Your task to perform on an android device: View the shopping cart on ebay. Search for "logitech g pro" on ebay, select the first entry, add it to the cart, then select checkout. Image 0: 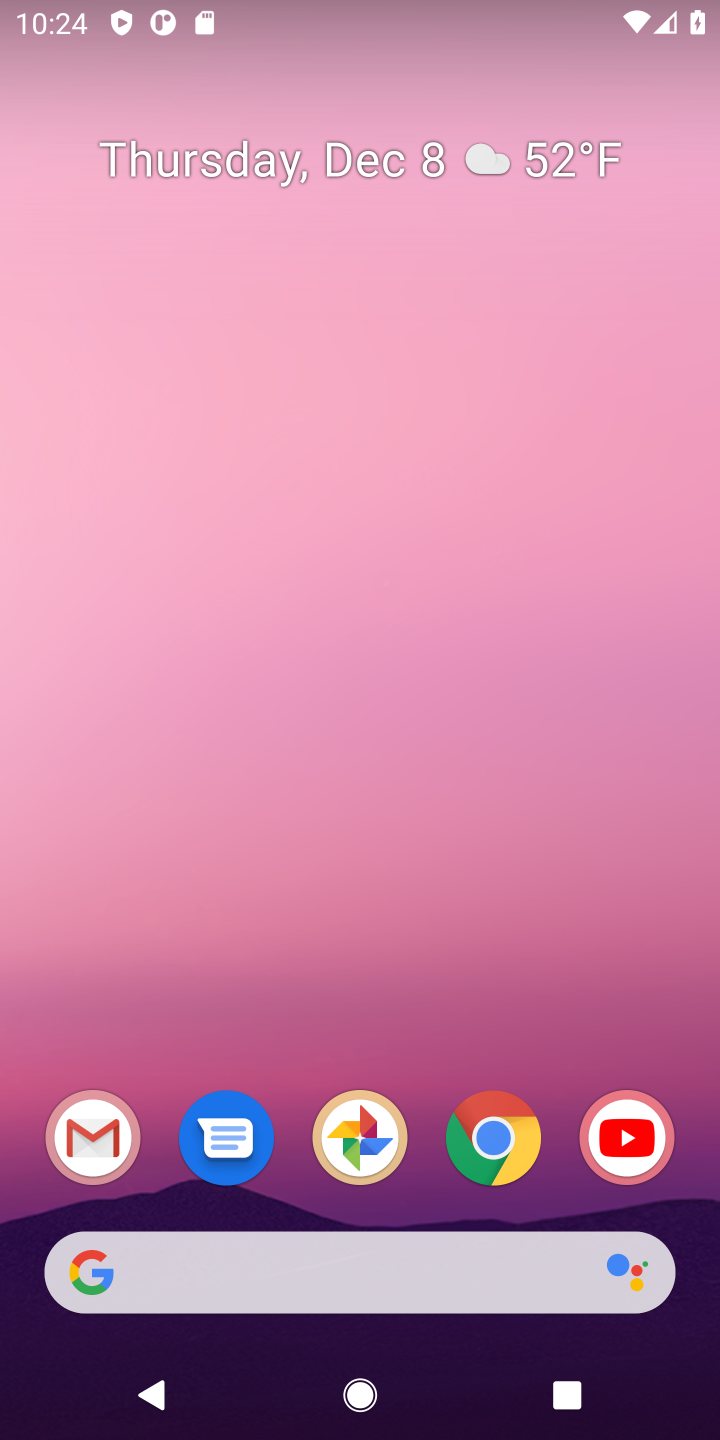
Step 0: click (486, 1148)
Your task to perform on an android device: View the shopping cart on ebay. Search for "logitech g pro" on ebay, select the first entry, add it to the cart, then select checkout. Image 1: 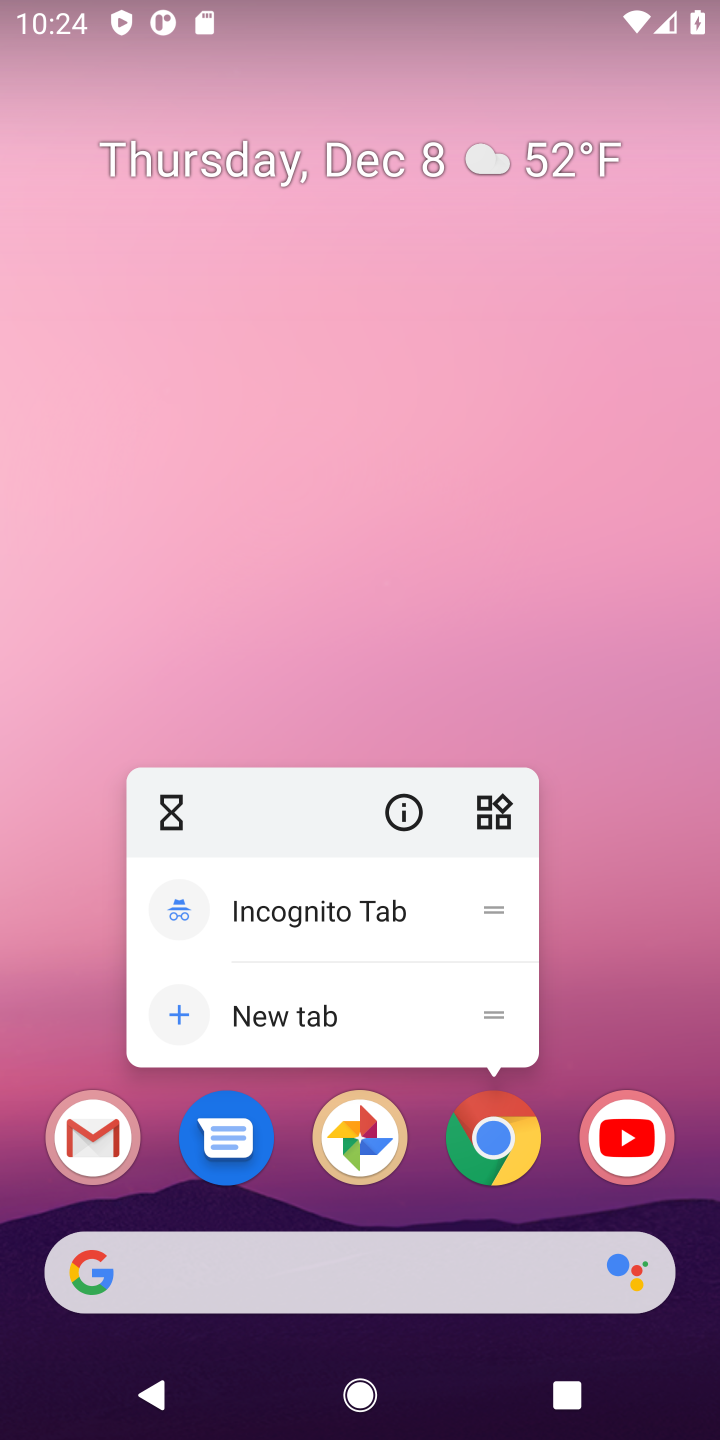
Step 1: click (486, 1148)
Your task to perform on an android device: View the shopping cart on ebay. Search for "logitech g pro" on ebay, select the first entry, add it to the cart, then select checkout. Image 2: 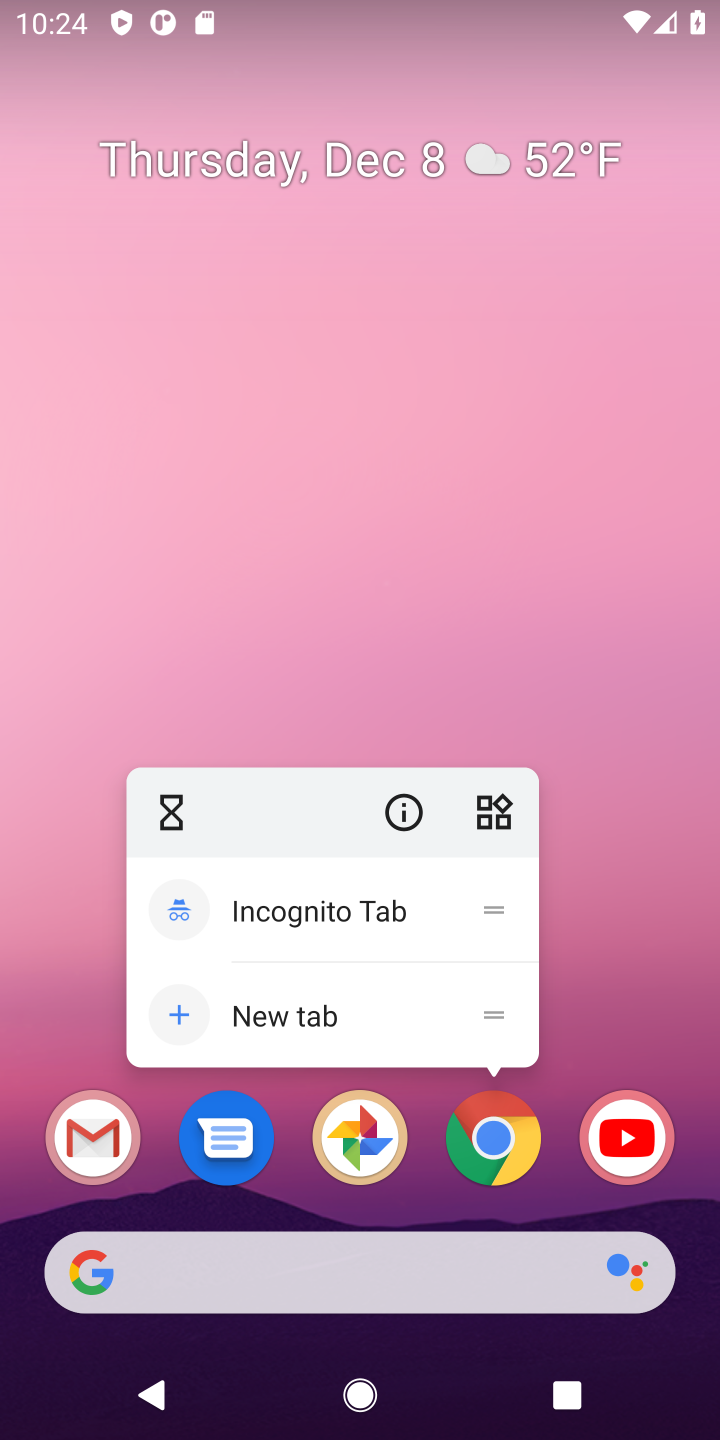
Step 2: click (486, 1148)
Your task to perform on an android device: View the shopping cart on ebay. Search for "logitech g pro" on ebay, select the first entry, add it to the cart, then select checkout. Image 3: 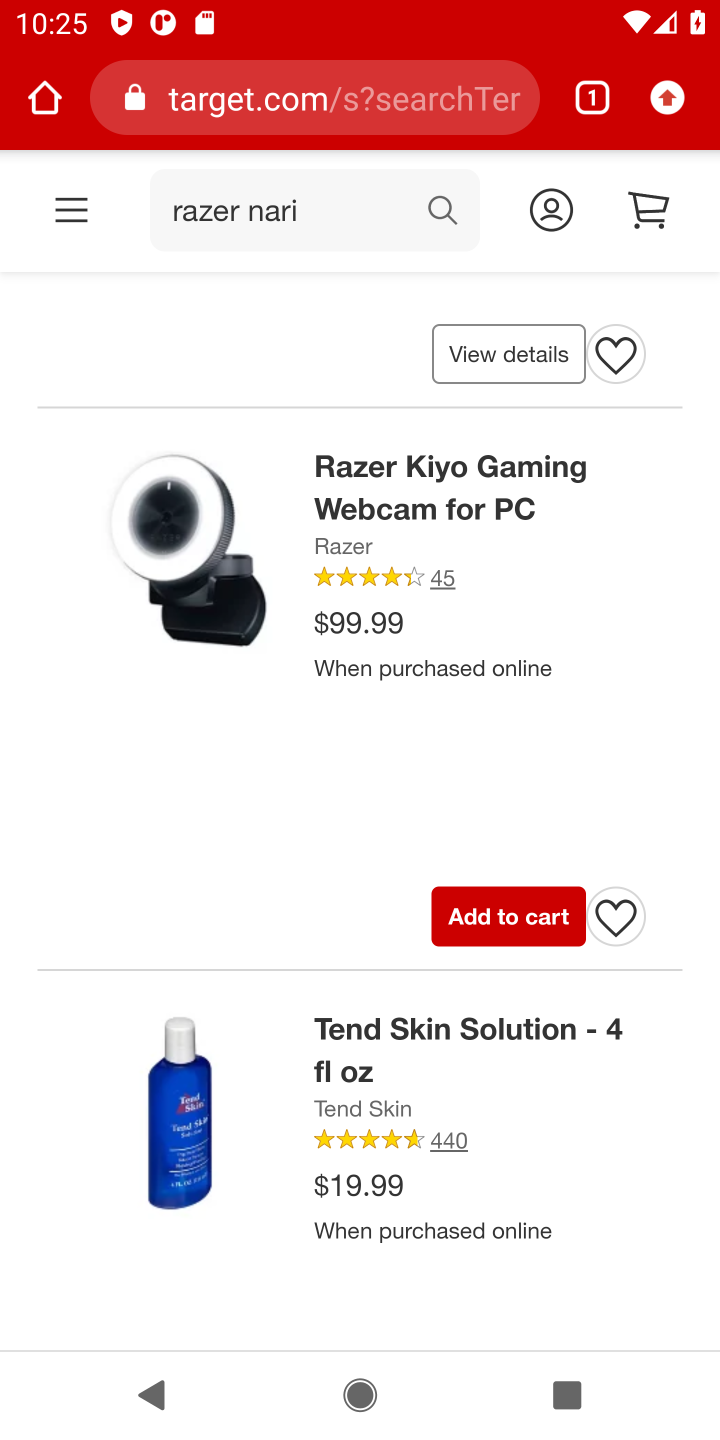
Step 3: click (390, 76)
Your task to perform on an android device: View the shopping cart on ebay. Search for "logitech g pro" on ebay, select the first entry, add it to the cart, then select checkout. Image 4: 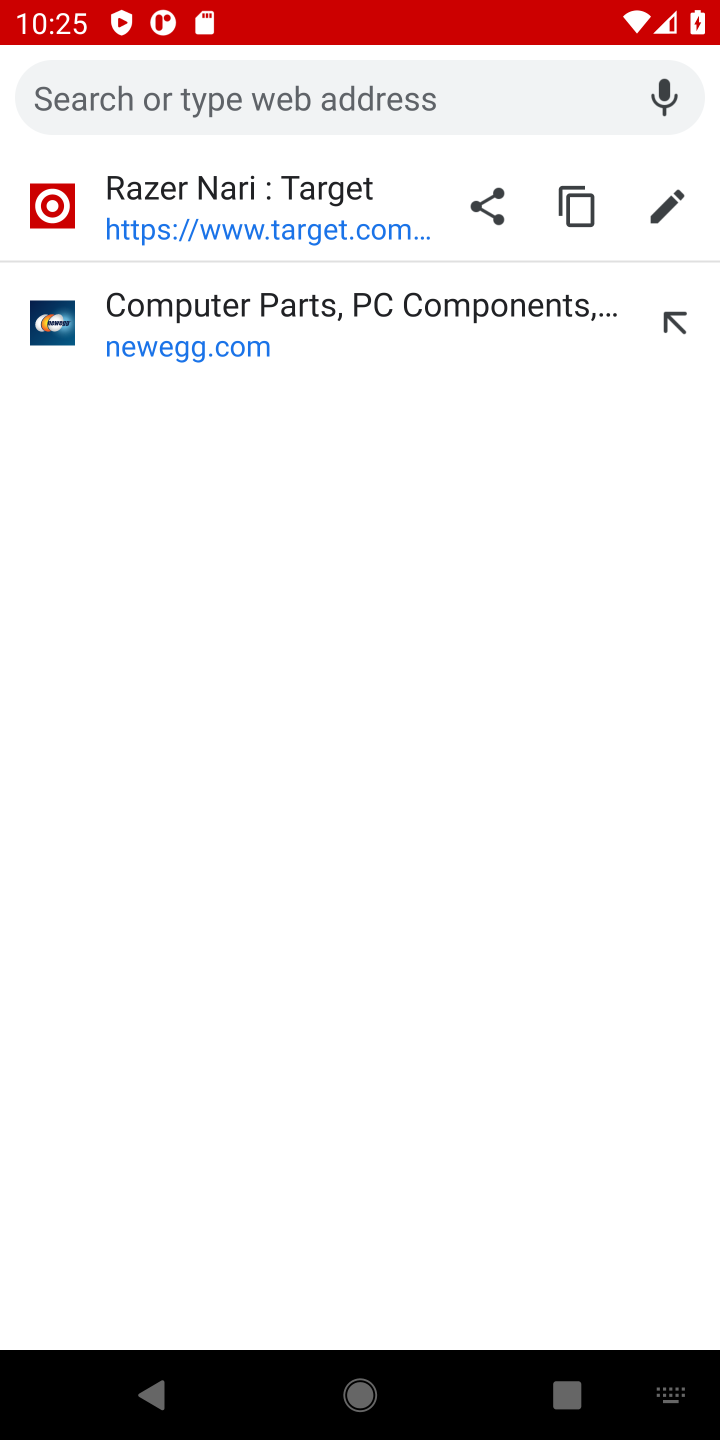
Step 4: press enter
Your task to perform on an android device: View the shopping cart on ebay. Search for "logitech g pro" on ebay, select the first entry, add it to the cart, then select checkout. Image 5: 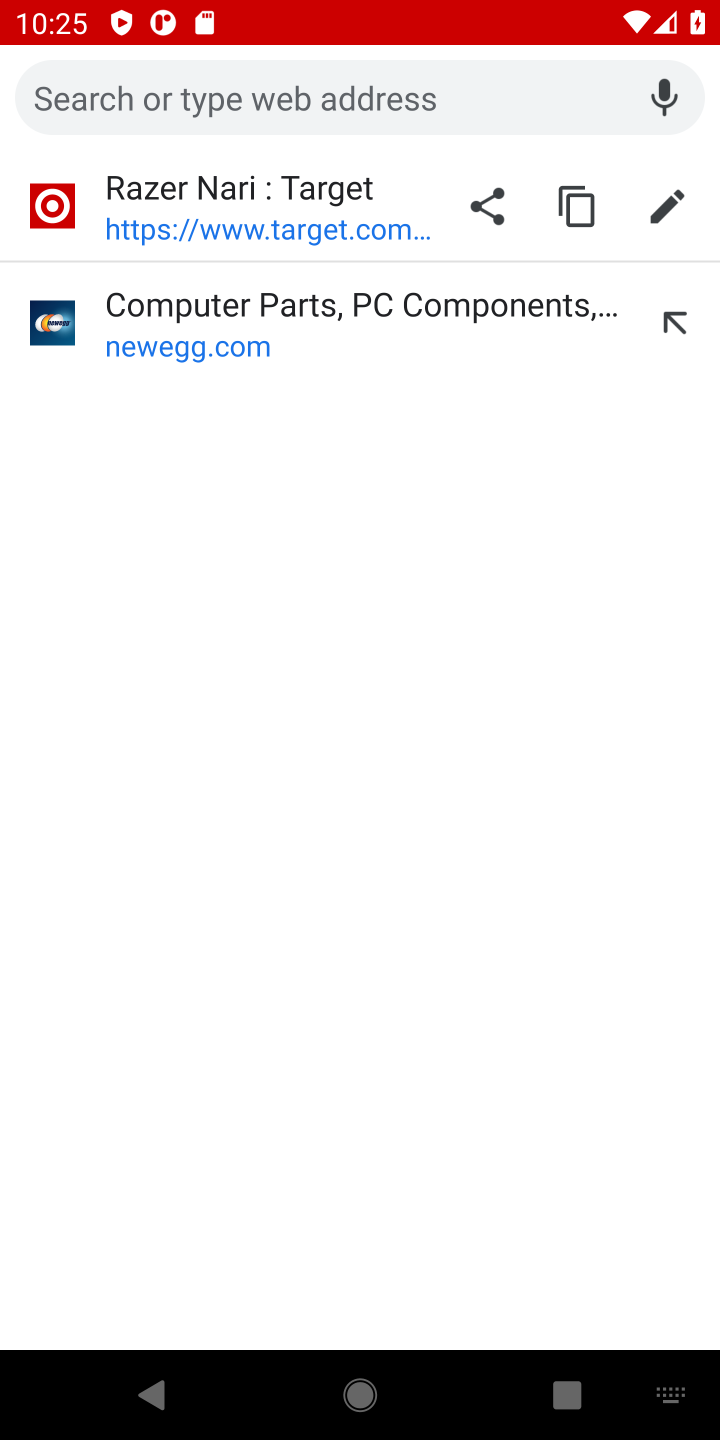
Step 5: type "ebay"
Your task to perform on an android device: View the shopping cart on ebay. Search for "logitech g pro" on ebay, select the first entry, add it to the cart, then select checkout. Image 6: 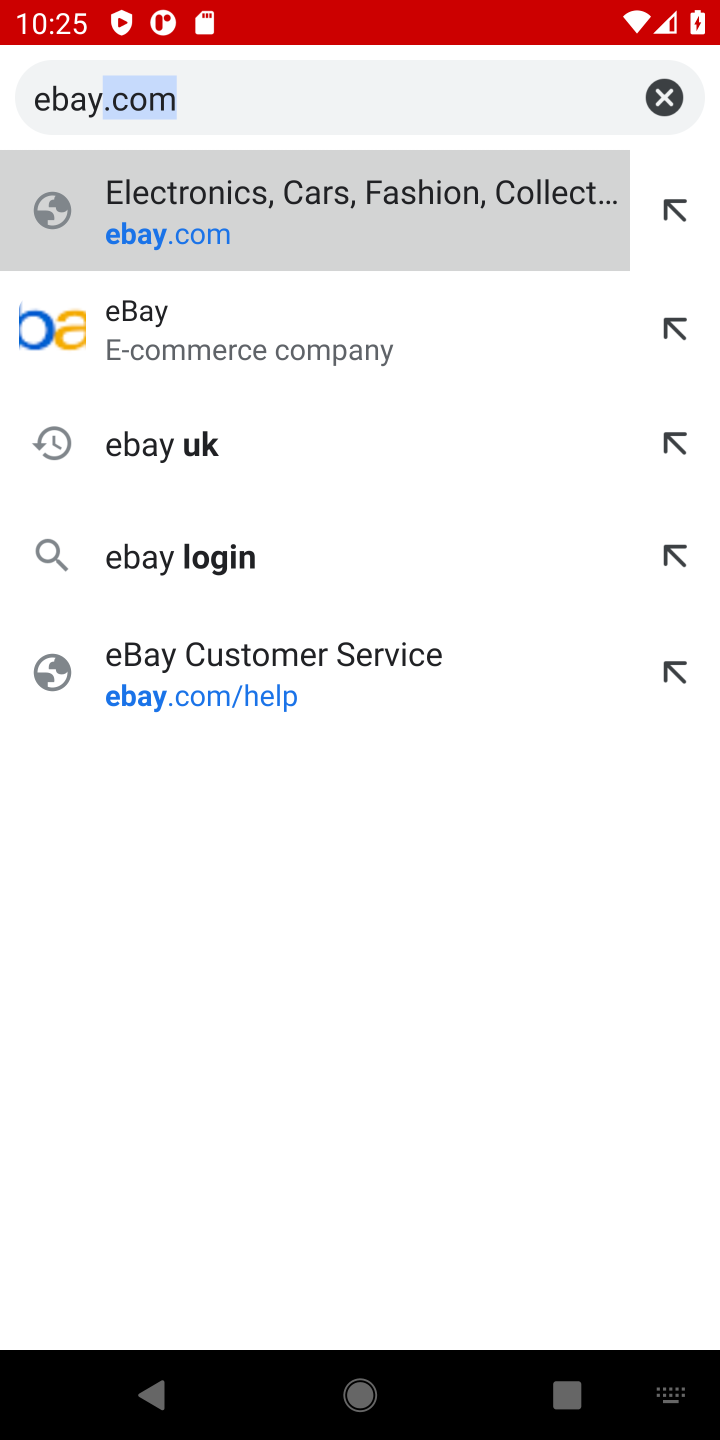
Step 6: click (390, 81)
Your task to perform on an android device: View the shopping cart on ebay. Search for "logitech g pro" on ebay, select the first entry, add it to the cart, then select checkout. Image 7: 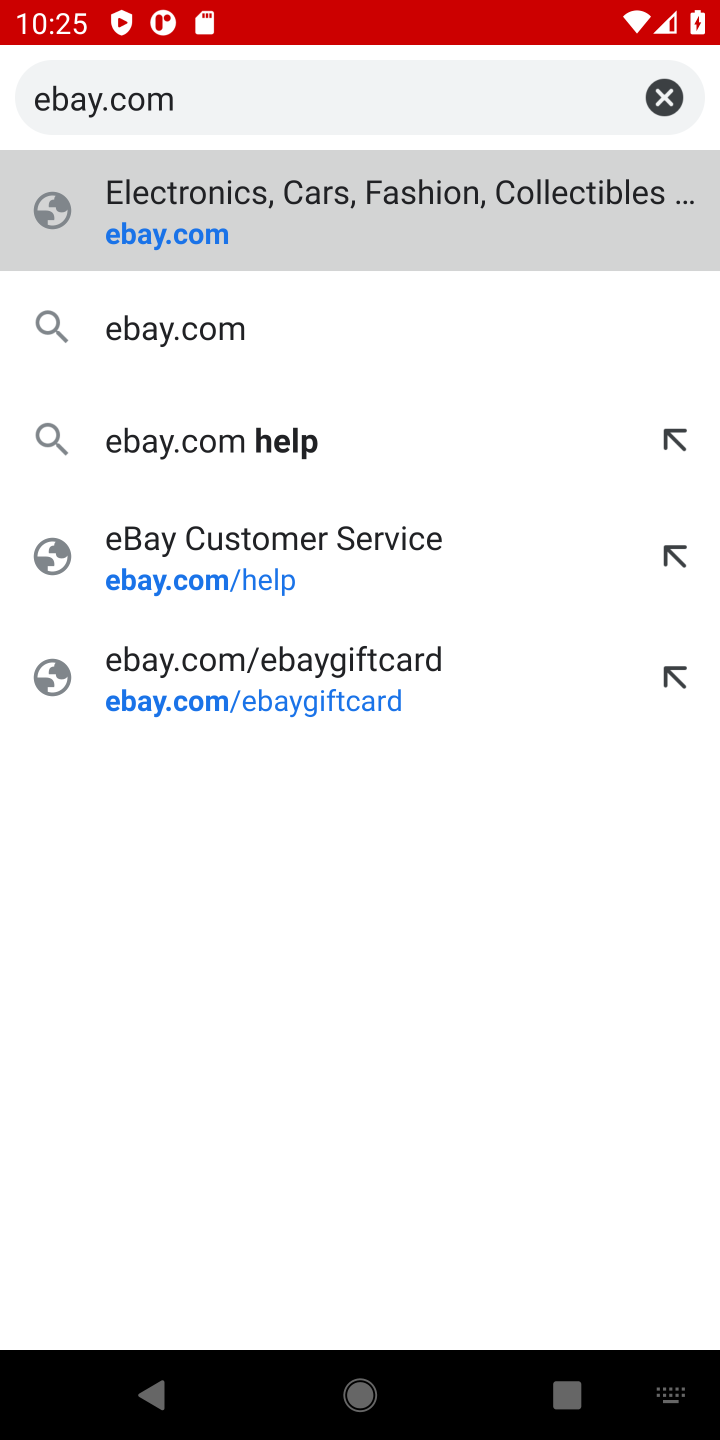
Step 7: click (208, 320)
Your task to perform on an android device: View the shopping cart on ebay. Search for "logitech g pro" on ebay, select the first entry, add it to the cart, then select checkout. Image 8: 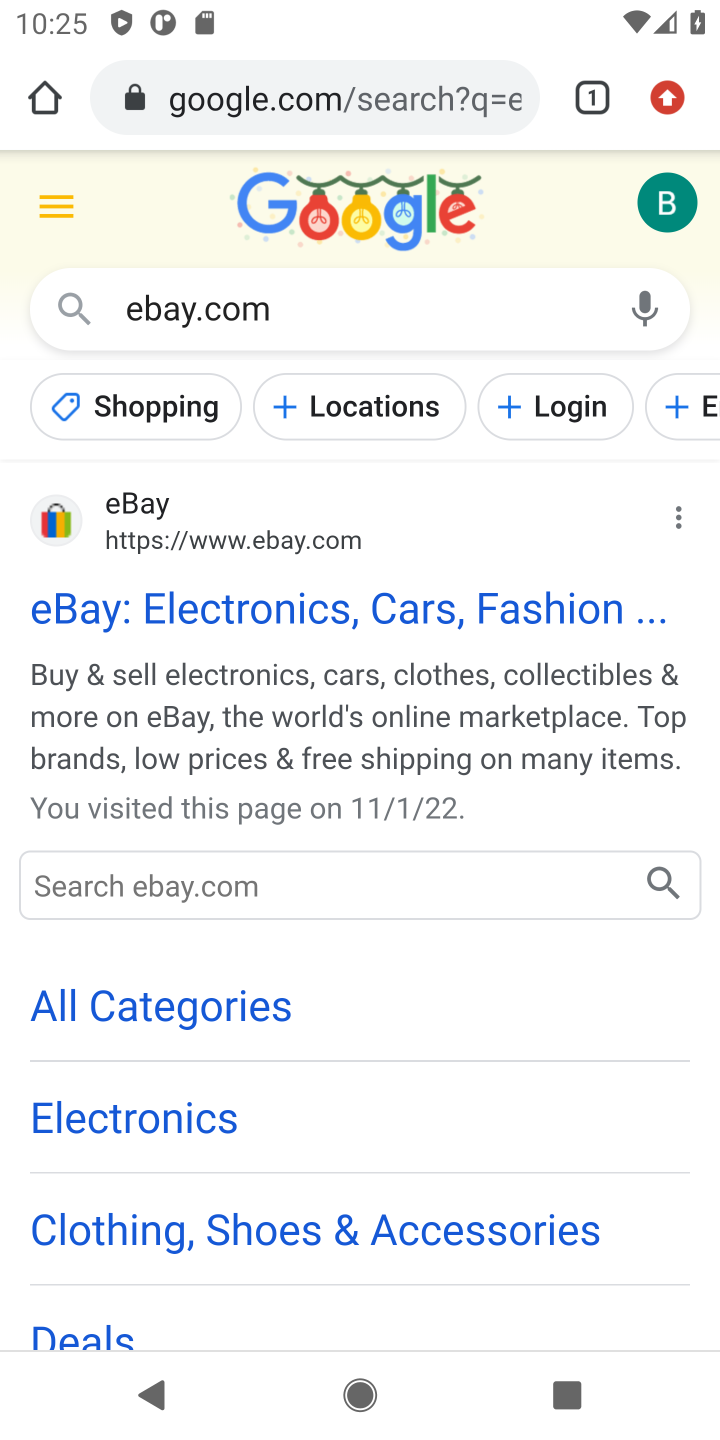
Step 8: click (272, 541)
Your task to perform on an android device: View the shopping cart on ebay. Search for "logitech g pro" on ebay, select the first entry, add it to the cart, then select checkout. Image 9: 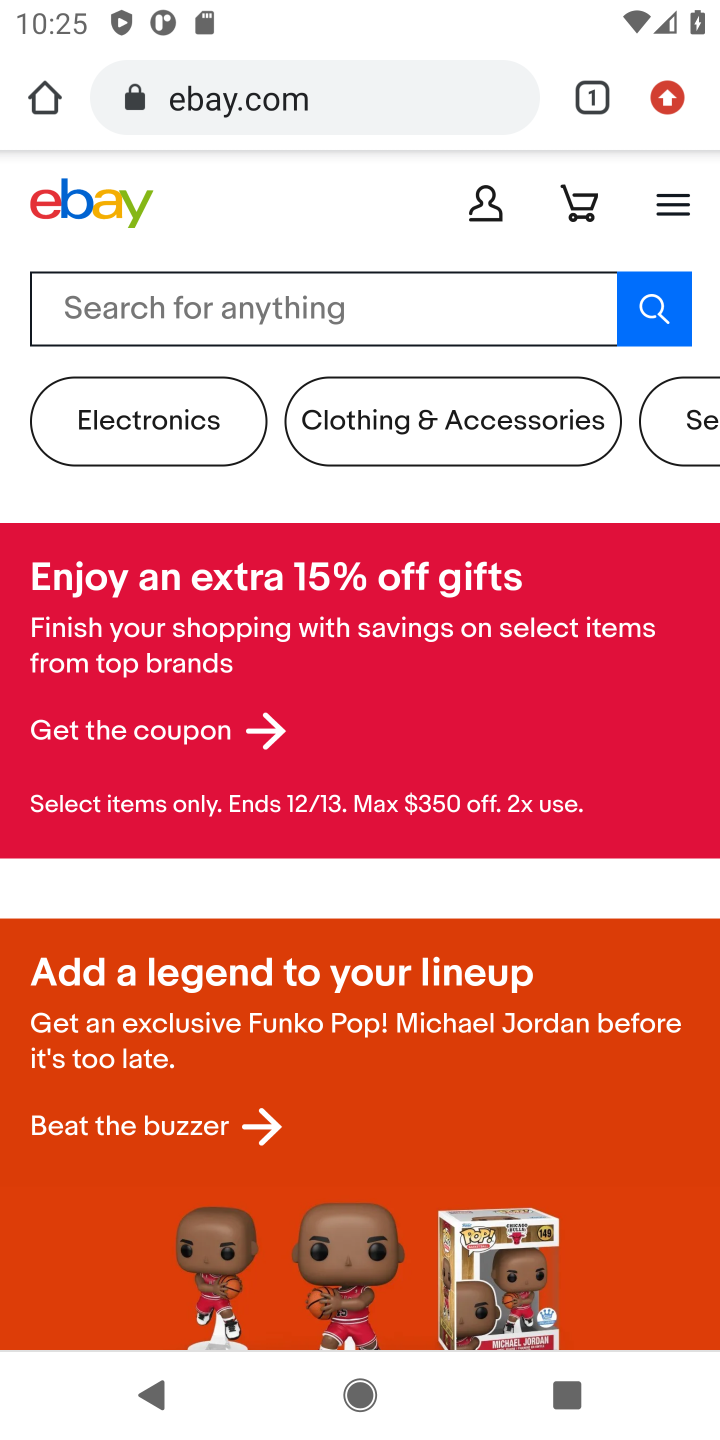
Step 9: click (584, 205)
Your task to perform on an android device: View the shopping cart on ebay. Search for "logitech g pro" on ebay, select the first entry, add it to the cart, then select checkout. Image 10: 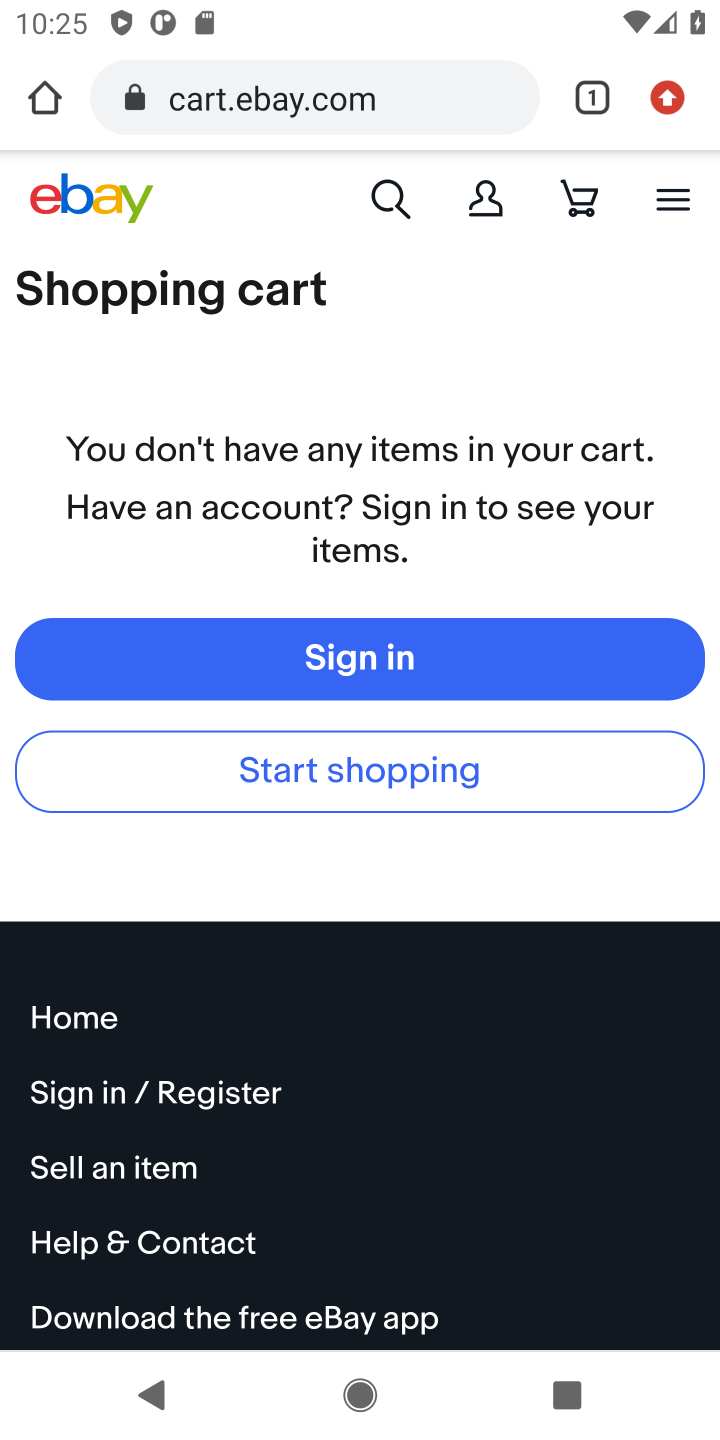
Step 10: click (393, 202)
Your task to perform on an android device: View the shopping cart on ebay. Search for "logitech g pro" on ebay, select the first entry, add it to the cart, then select checkout. Image 11: 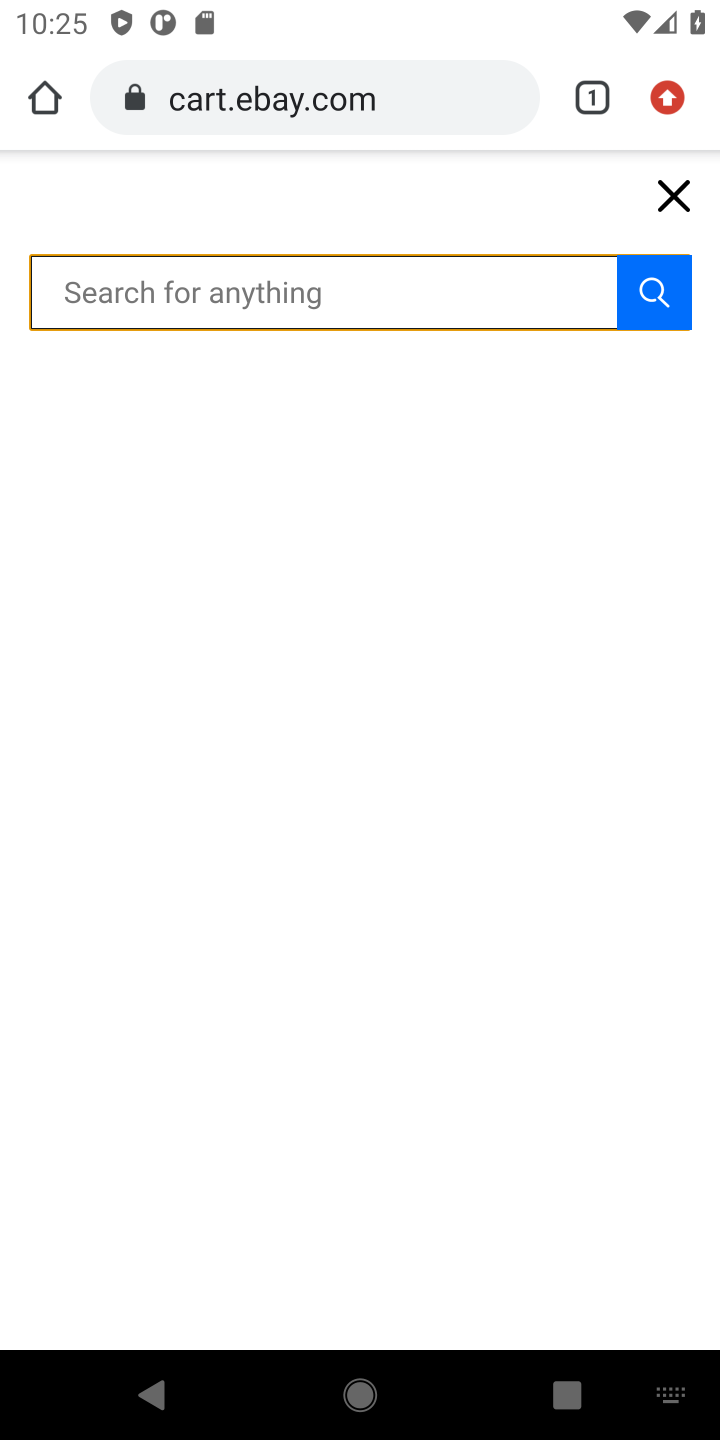
Step 11: type "logitech g pro"
Your task to perform on an android device: View the shopping cart on ebay. Search for "logitech g pro" on ebay, select the first entry, add it to the cart, then select checkout. Image 12: 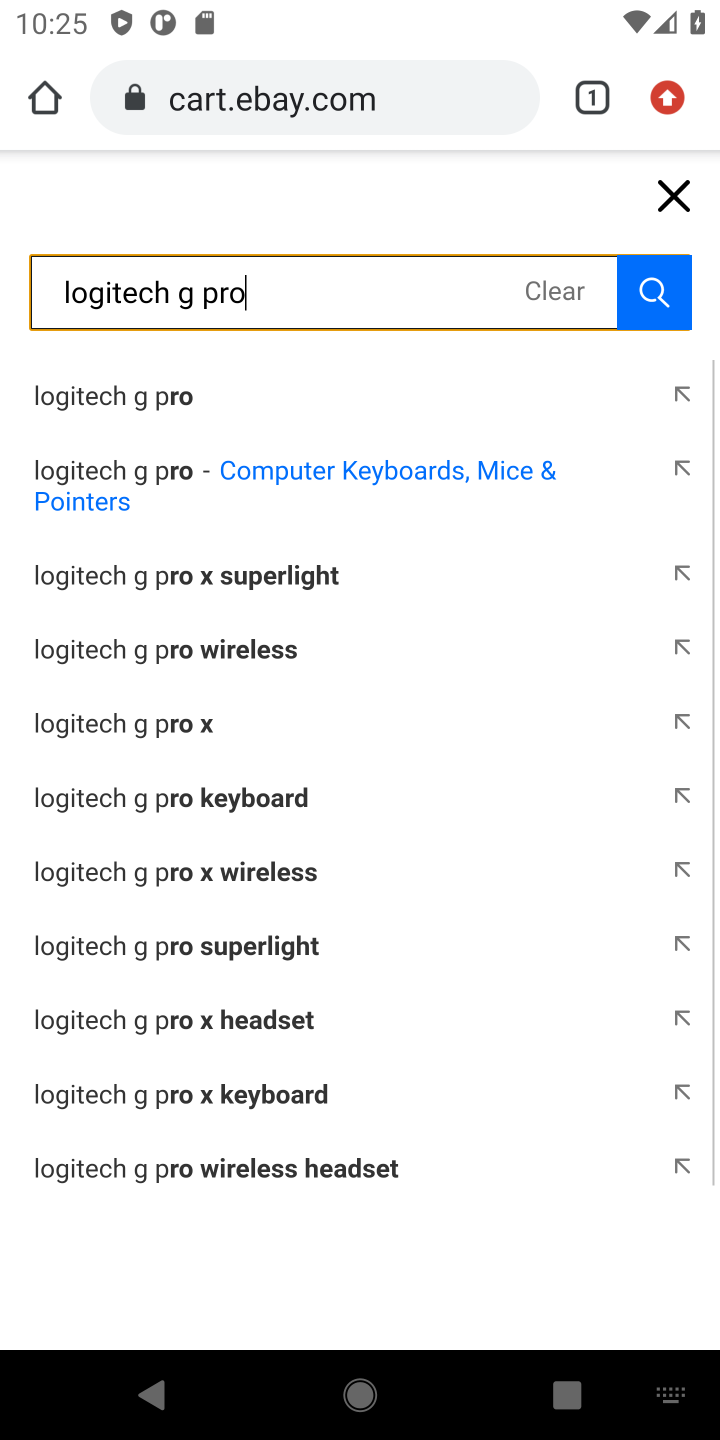
Step 12: press enter
Your task to perform on an android device: View the shopping cart on ebay. Search for "logitech g pro" on ebay, select the first entry, add it to the cart, then select checkout. Image 13: 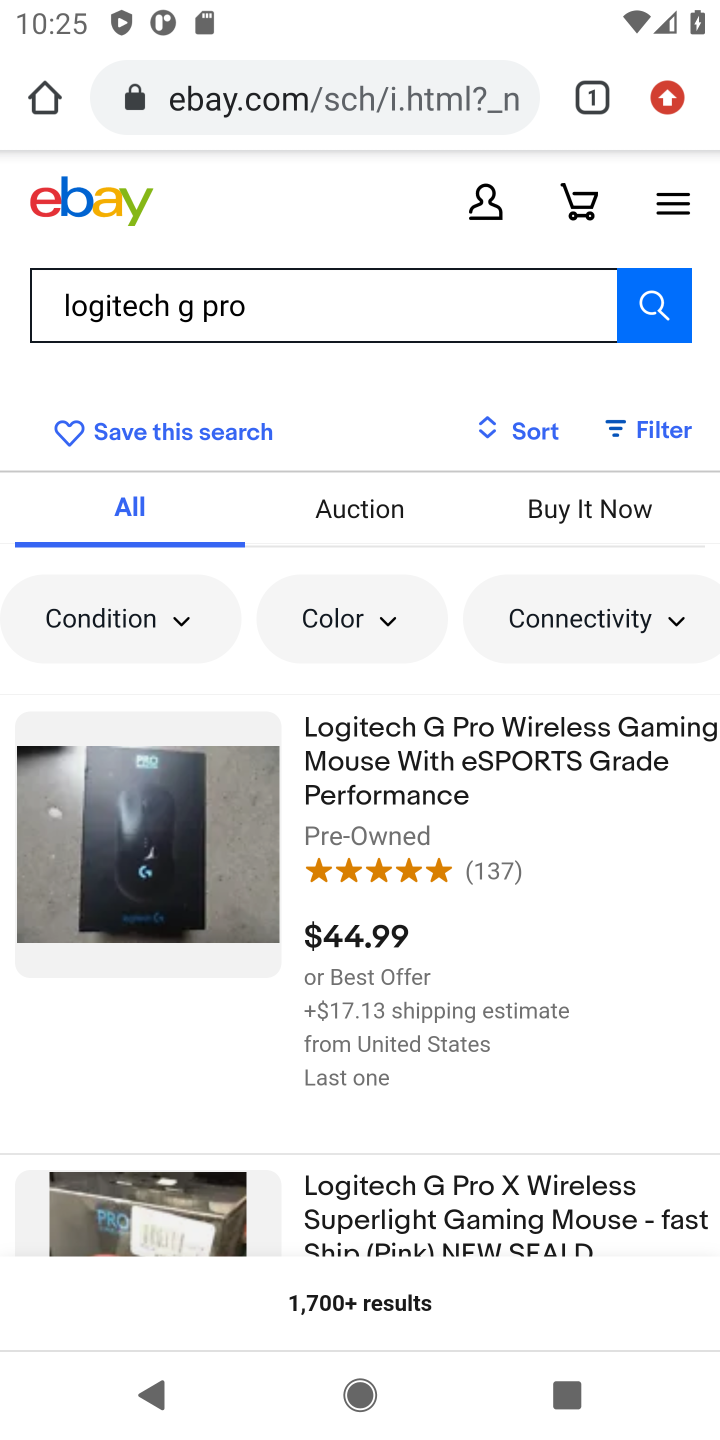
Step 13: click (141, 796)
Your task to perform on an android device: View the shopping cart on ebay. Search for "logitech g pro" on ebay, select the first entry, add it to the cart, then select checkout. Image 14: 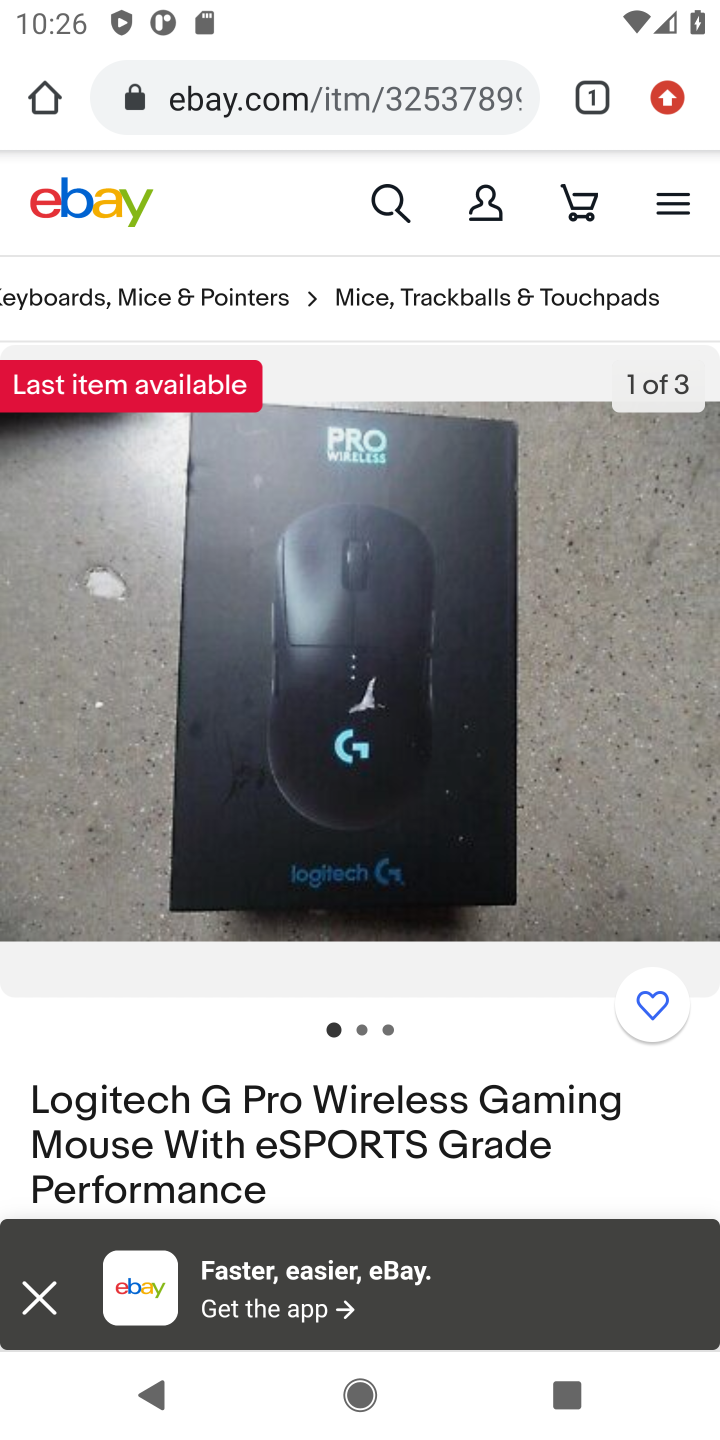
Step 14: drag from (589, 1177) to (524, 42)
Your task to perform on an android device: View the shopping cart on ebay. Search for "logitech g pro" on ebay, select the first entry, add it to the cart, then select checkout. Image 15: 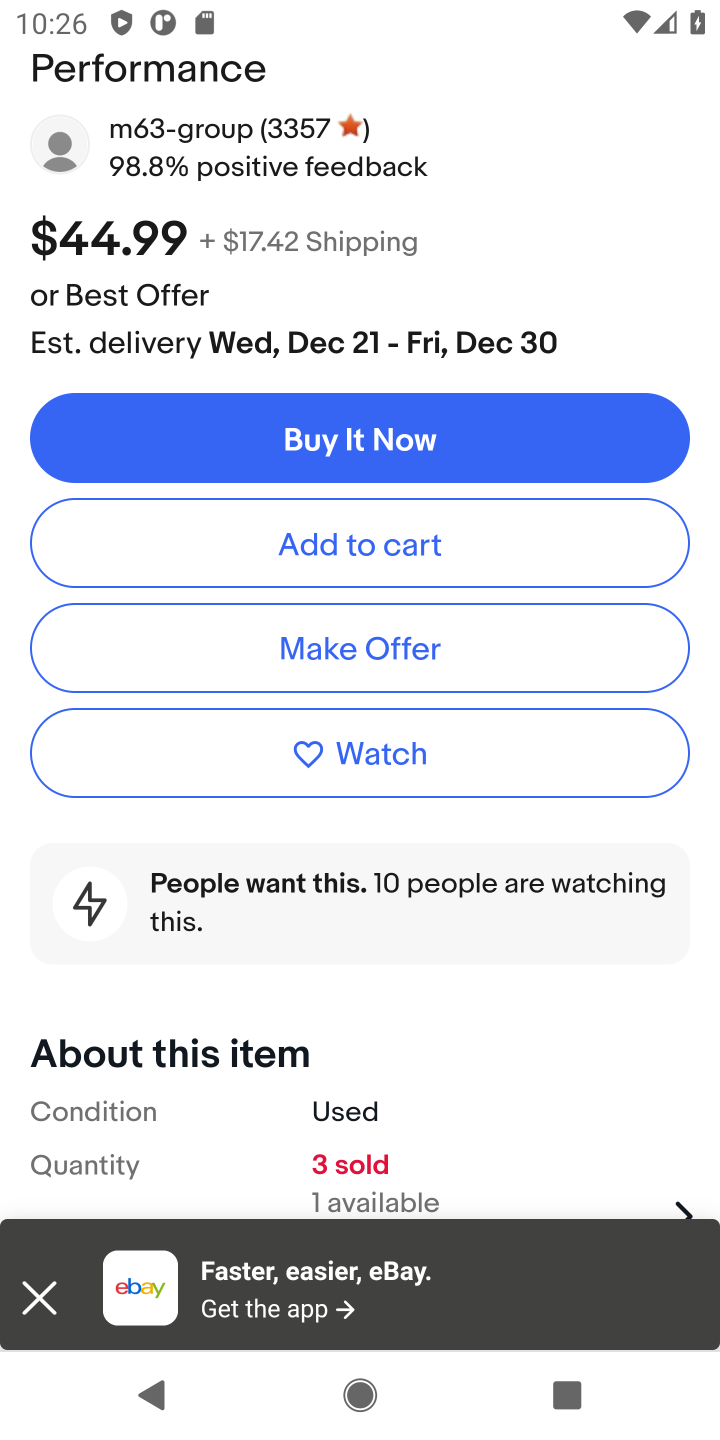
Step 15: click (396, 545)
Your task to perform on an android device: View the shopping cart on ebay. Search for "logitech g pro" on ebay, select the first entry, add it to the cart, then select checkout. Image 16: 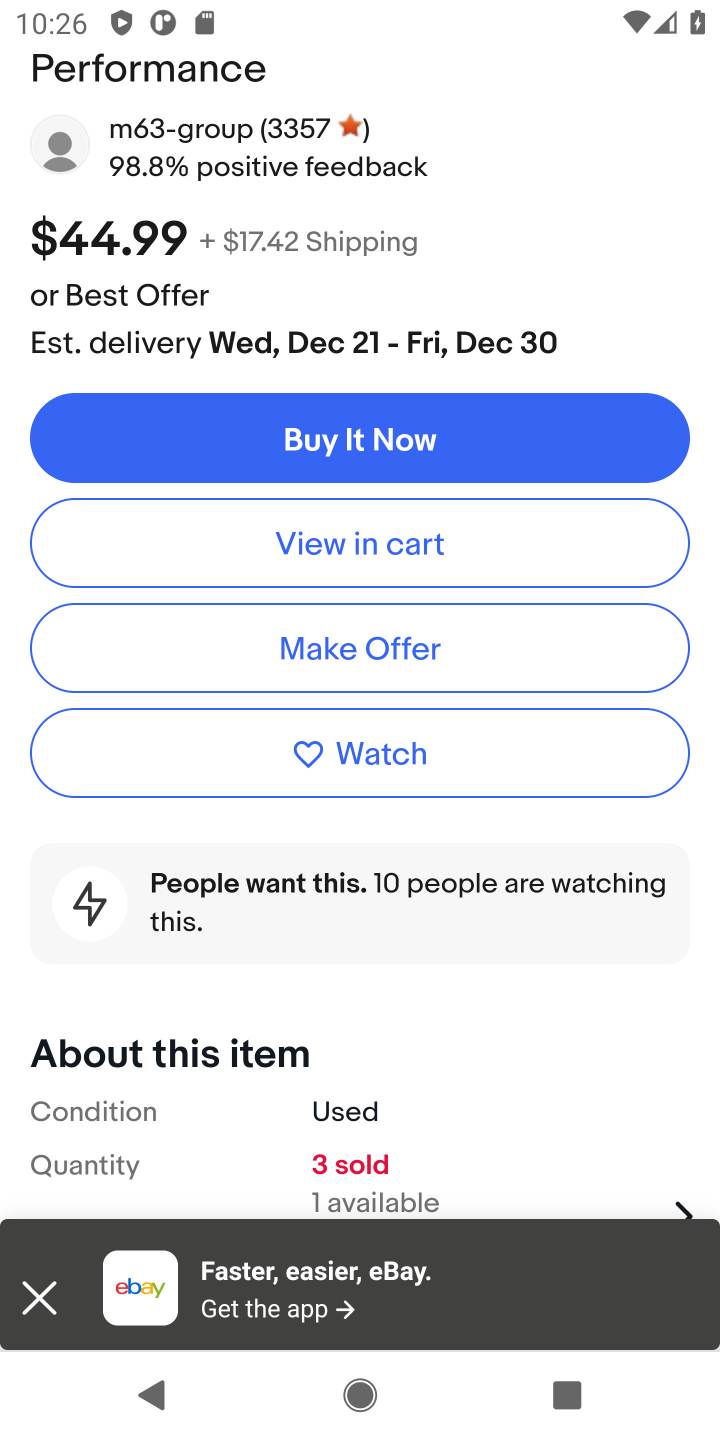
Step 16: click (396, 545)
Your task to perform on an android device: View the shopping cart on ebay. Search for "logitech g pro" on ebay, select the first entry, add it to the cart, then select checkout. Image 17: 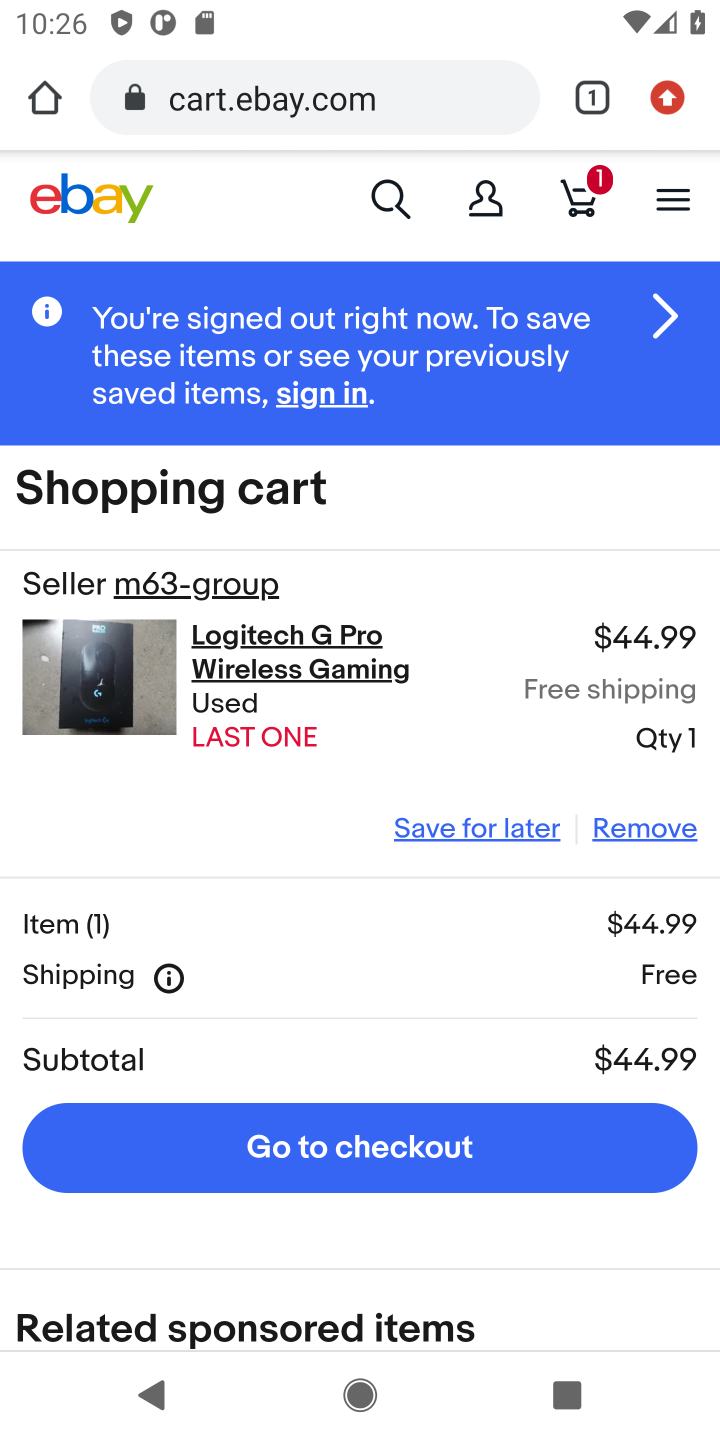
Step 17: click (411, 1147)
Your task to perform on an android device: View the shopping cart on ebay. Search for "logitech g pro" on ebay, select the first entry, add it to the cart, then select checkout. Image 18: 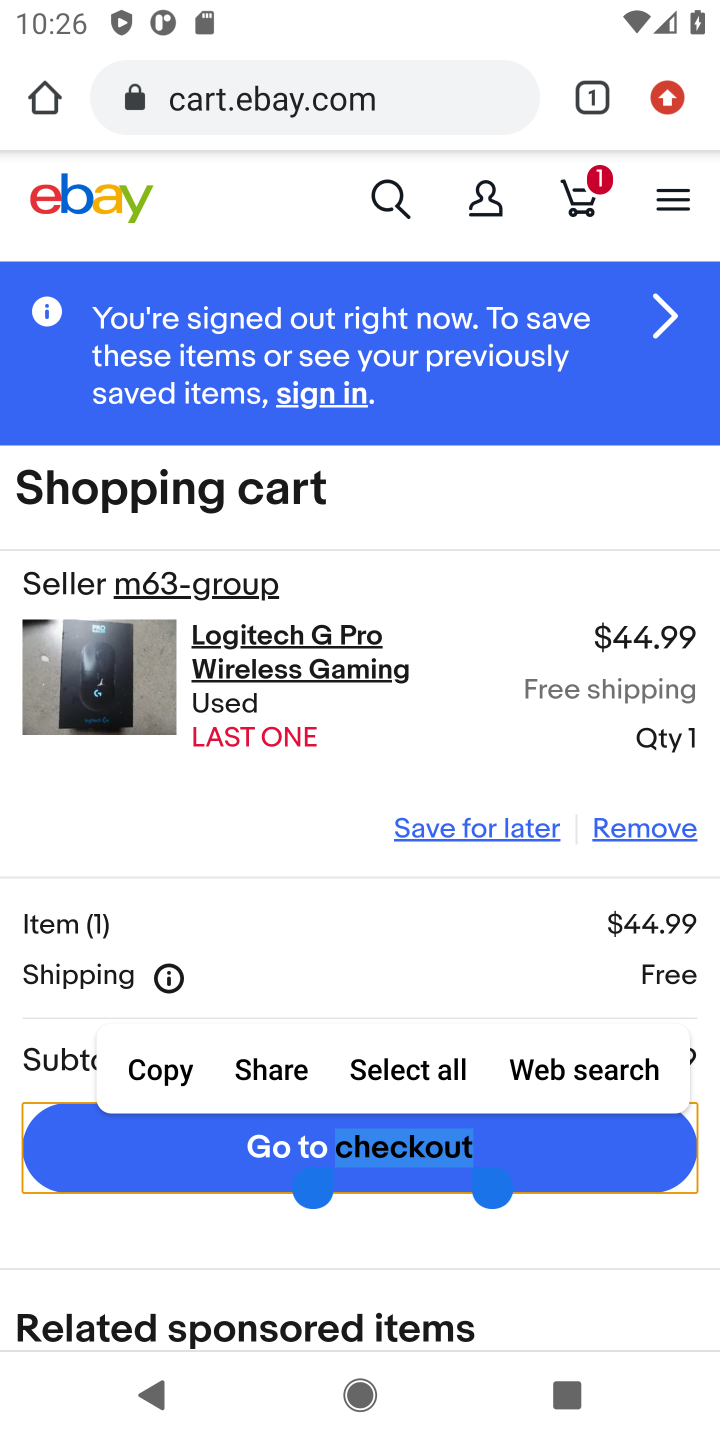
Step 18: click (288, 1152)
Your task to perform on an android device: View the shopping cart on ebay. Search for "logitech g pro" on ebay, select the first entry, add it to the cart, then select checkout. Image 19: 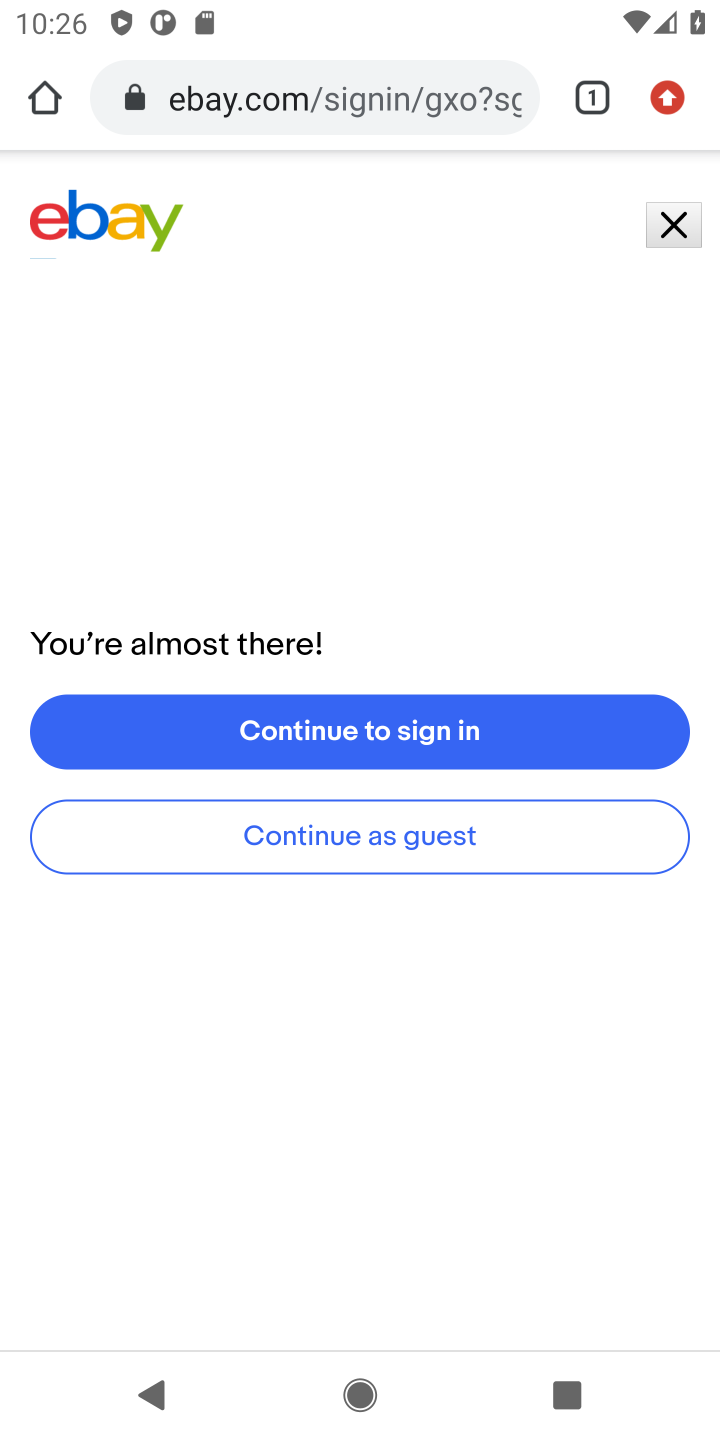
Step 19: task complete